Your task to perform on an android device: install app "Microsoft Excel" Image 0: 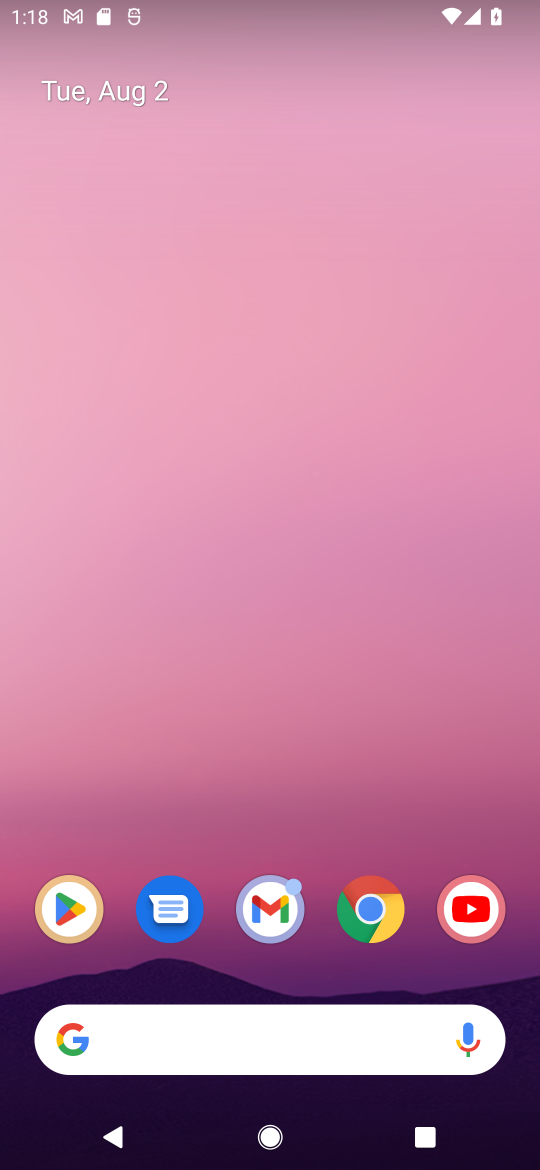
Step 0: click (69, 910)
Your task to perform on an android device: install app "Microsoft Excel" Image 1: 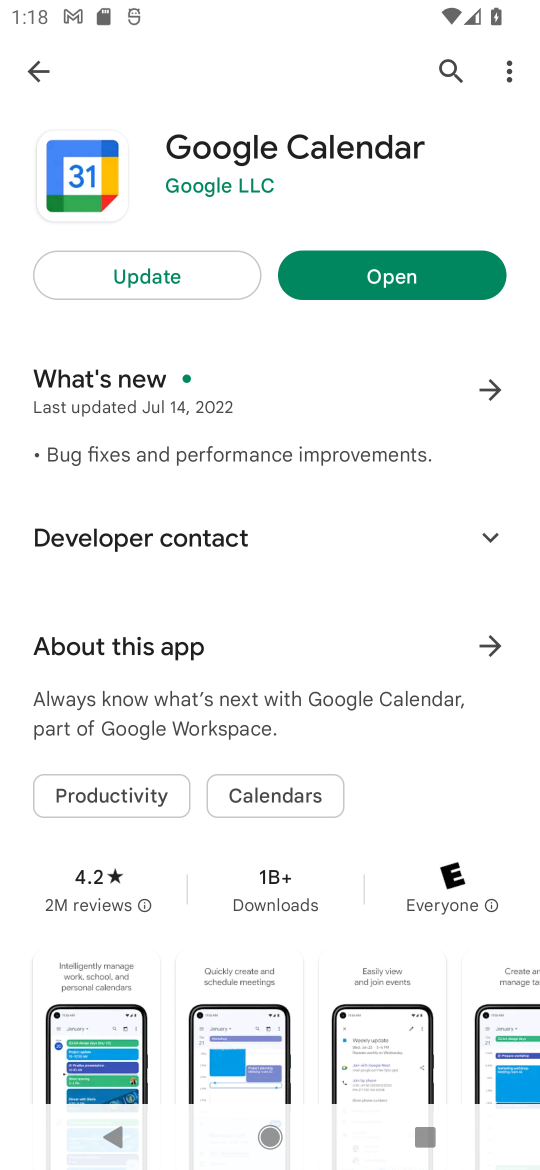
Step 1: press home button
Your task to perform on an android device: install app "Microsoft Excel" Image 2: 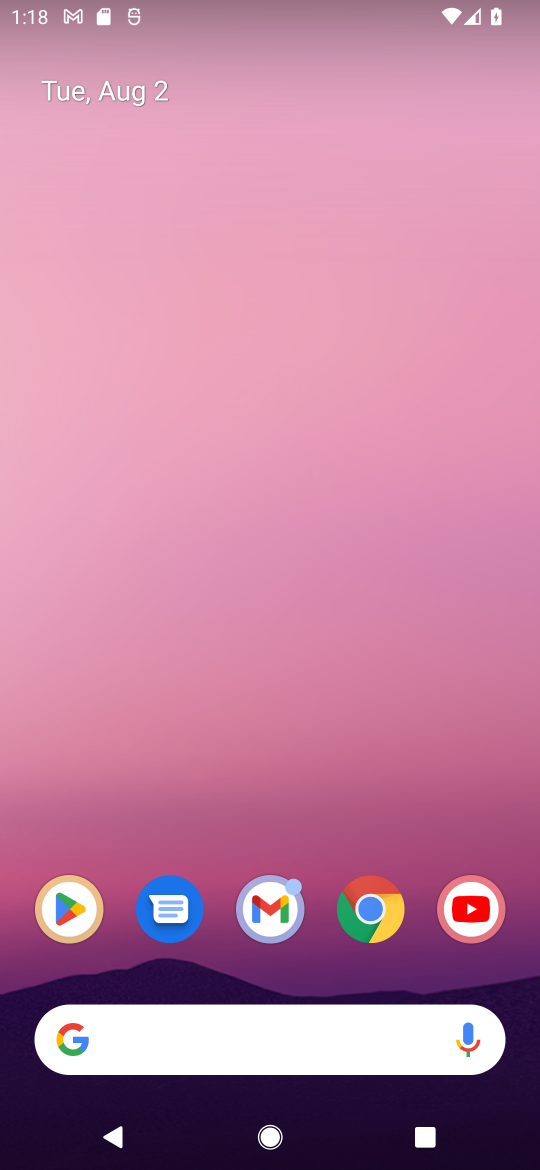
Step 2: click (69, 912)
Your task to perform on an android device: install app "Microsoft Excel" Image 3: 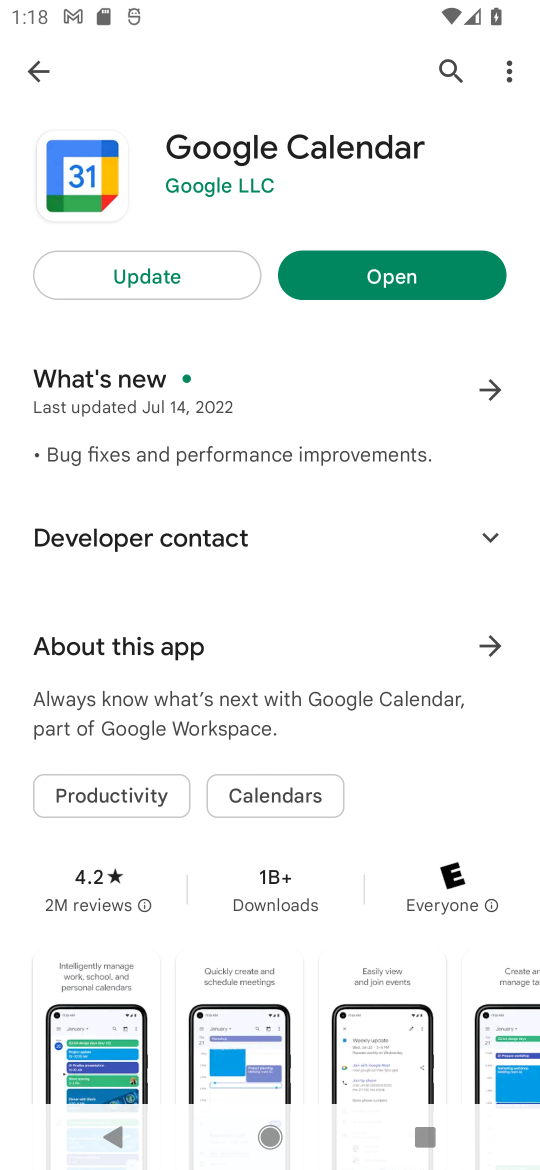
Step 3: click (41, 69)
Your task to perform on an android device: install app "Microsoft Excel" Image 4: 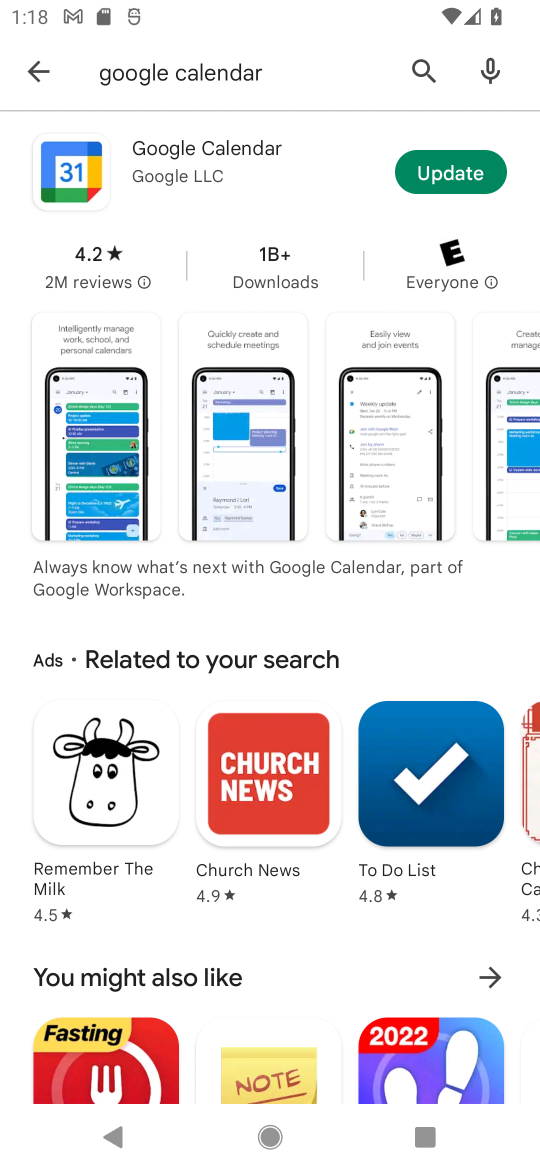
Step 4: click (418, 72)
Your task to perform on an android device: install app "Microsoft Excel" Image 5: 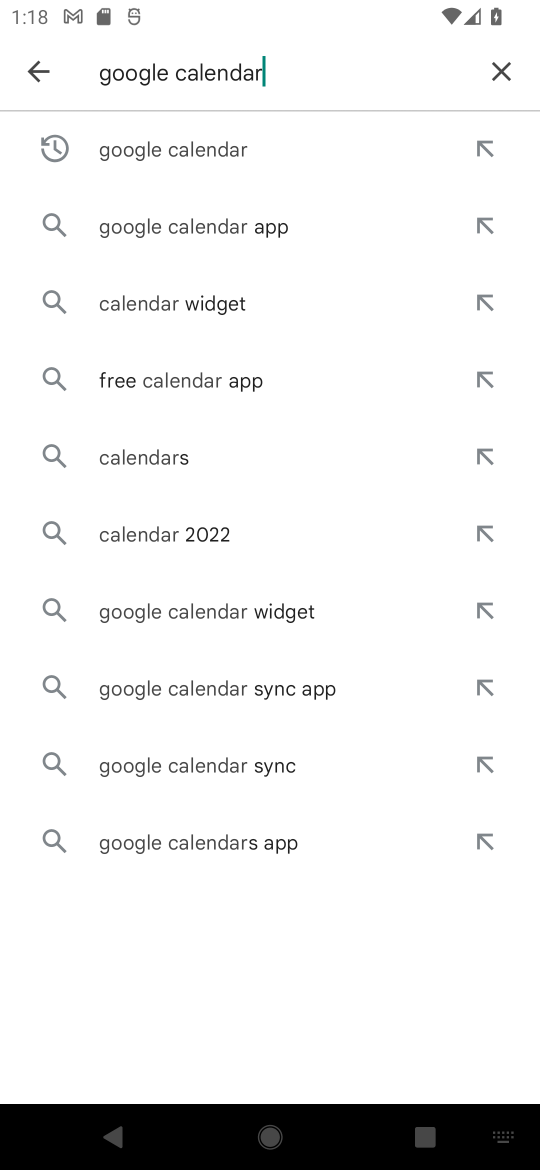
Step 5: click (502, 70)
Your task to perform on an android device: install app "Microsoft Excel" Image 6: 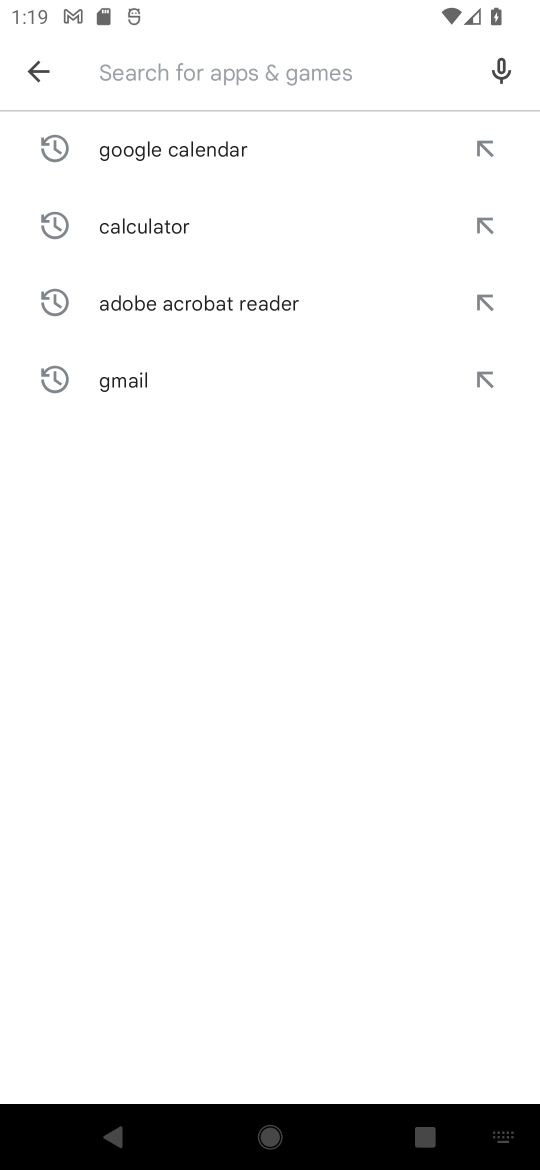
Step 6: type "Microsoft Excel"
Your task to perform on an android device: install app "Microsoft Excel" Image 7: 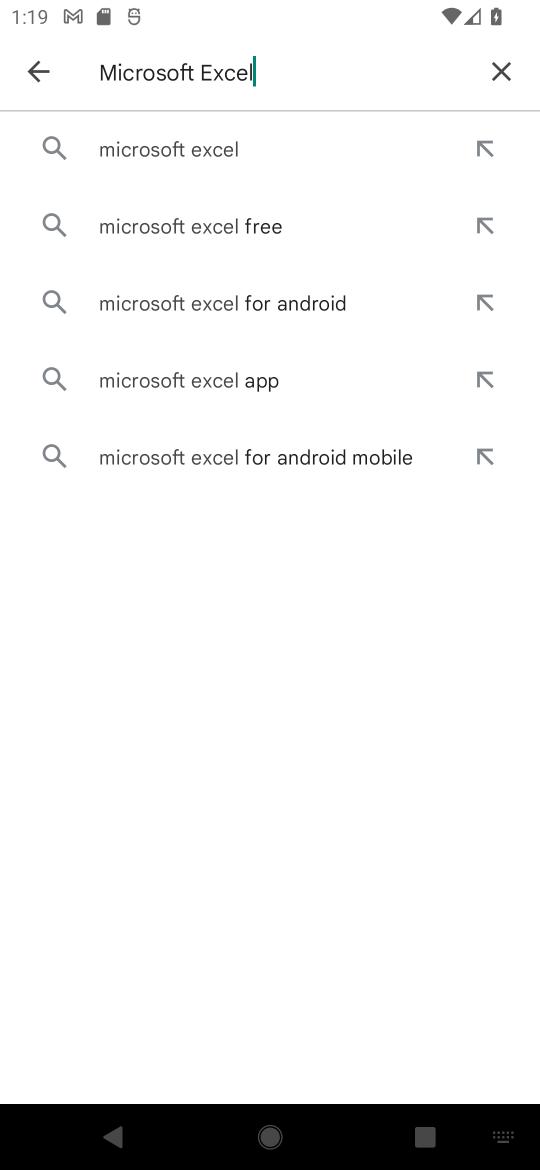
Step 7: click (184, 144)
Your task to perform on an android device: install app "Microsoft Excel" Image 8: 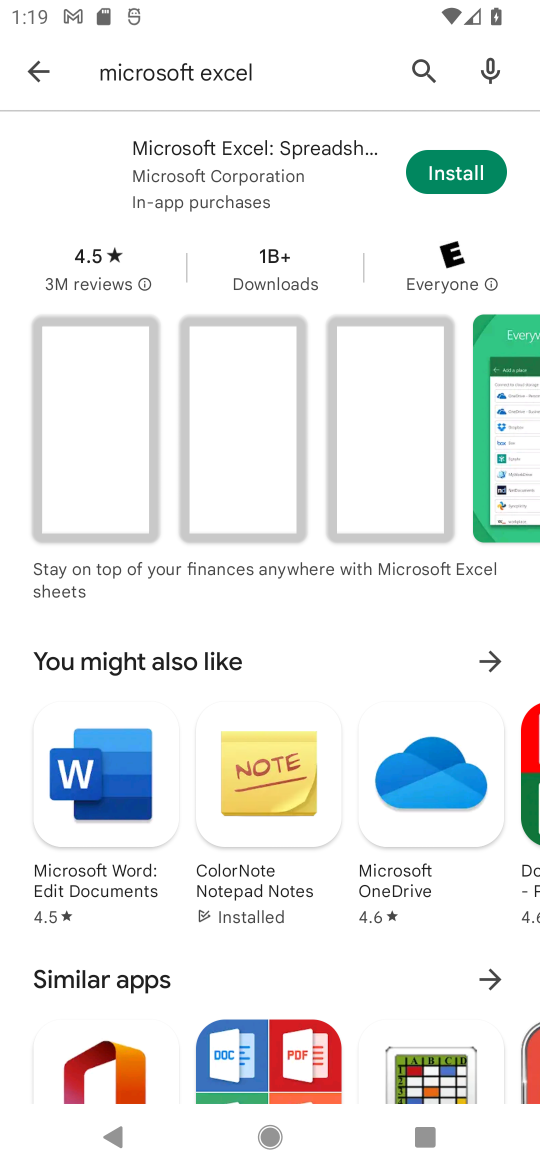
Step 8: click (467, 174)
Your task to perform on an android device: install app "Microsoft Excel" Image 9: 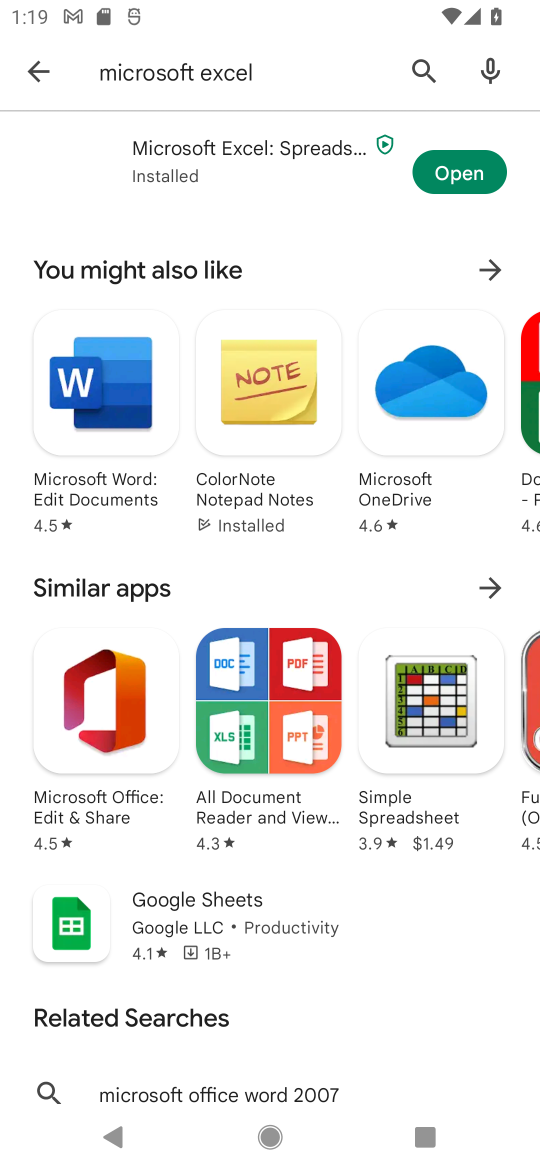
Step 9: click (203, 161)
Your task to perform on an android device: install app "Microsoft Excel" Image 10: 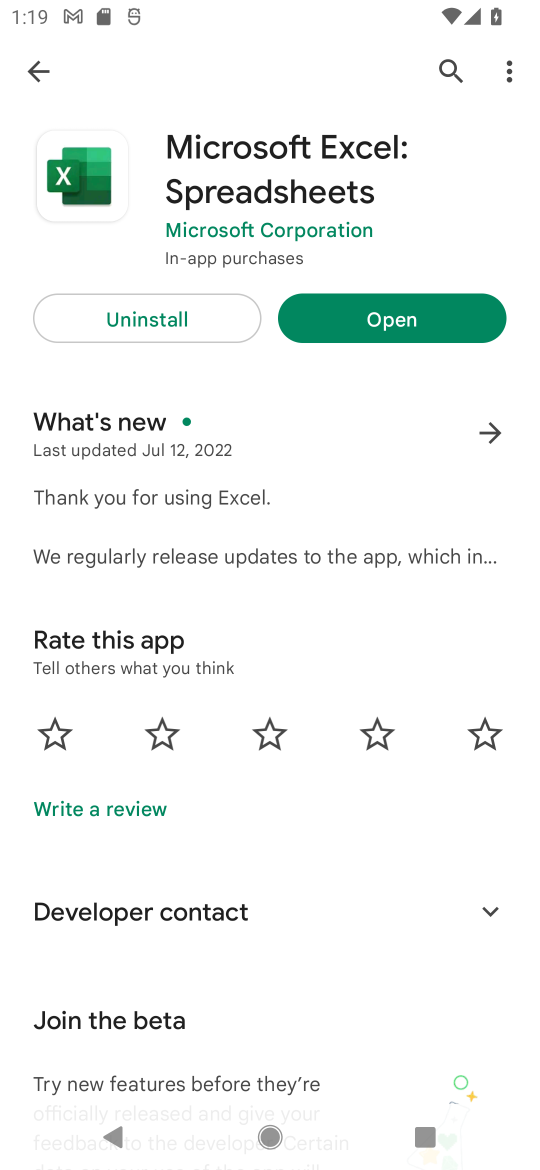
Step 10: task complete